Your task to perform on an android device: Open my contact list Image 0: 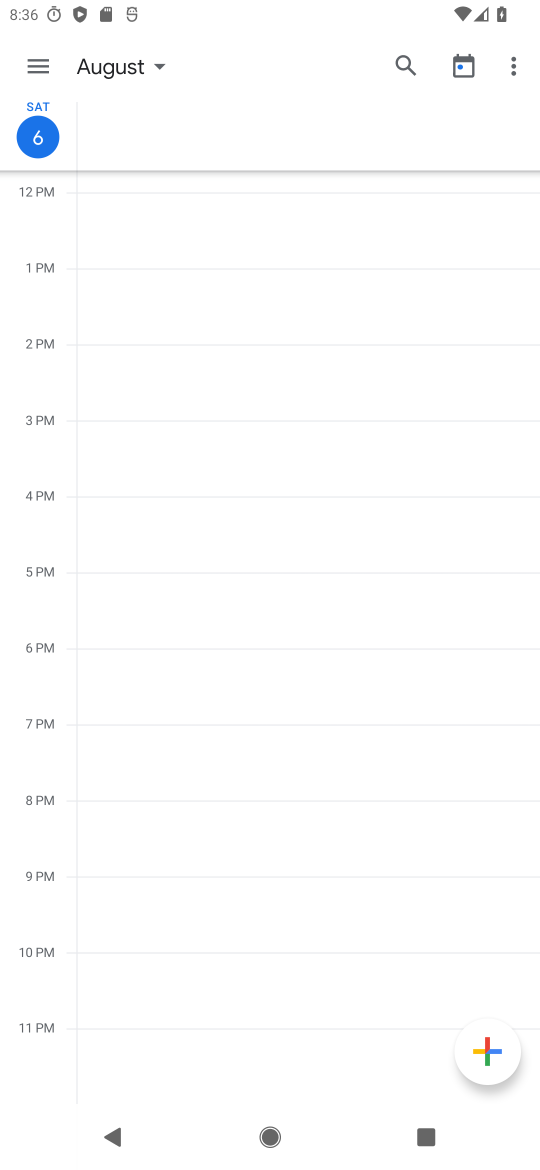
Step 0: press home button
Your task to perform on an android device: Open my contact list Image 1: 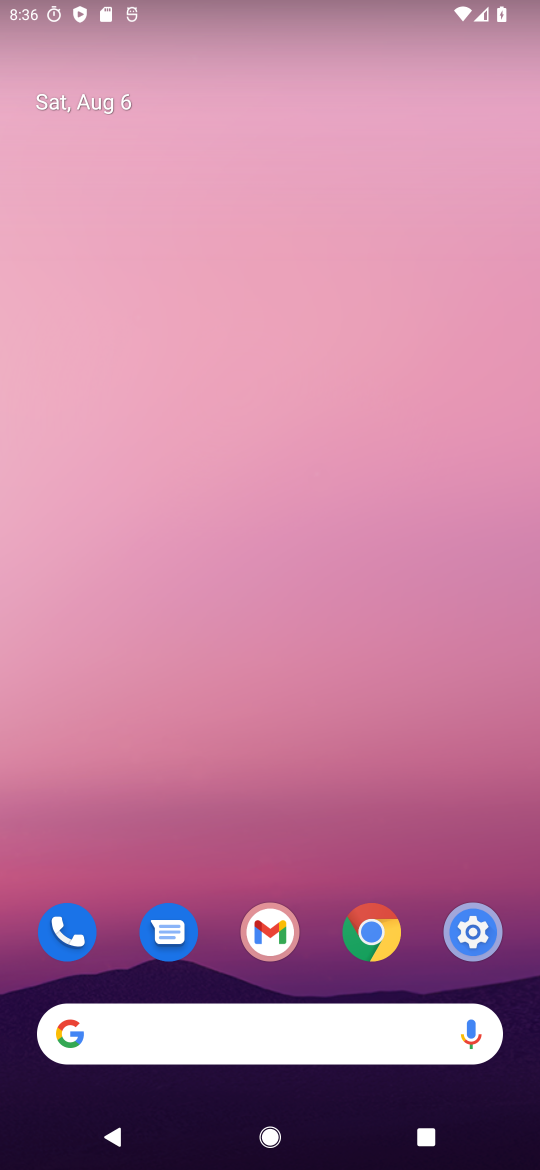
Step 1: drag from (278, 1019) to (446, 244)
Your task to perform on an android device: Open my contact list Image 2: 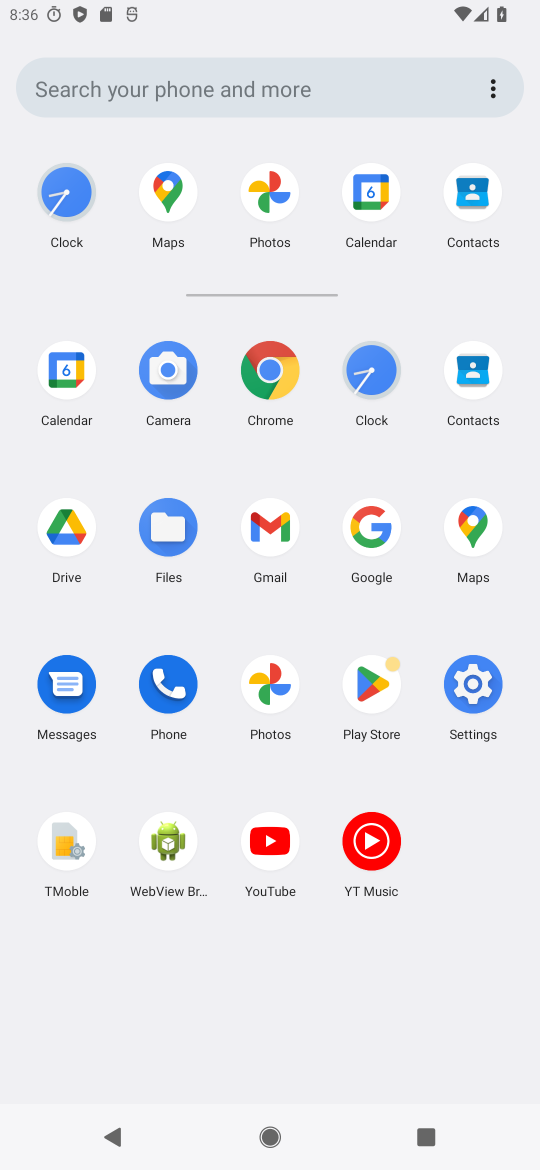
Step 2: click (476, 199)
Your task to perform on an android device: Open my contact list Image 3: 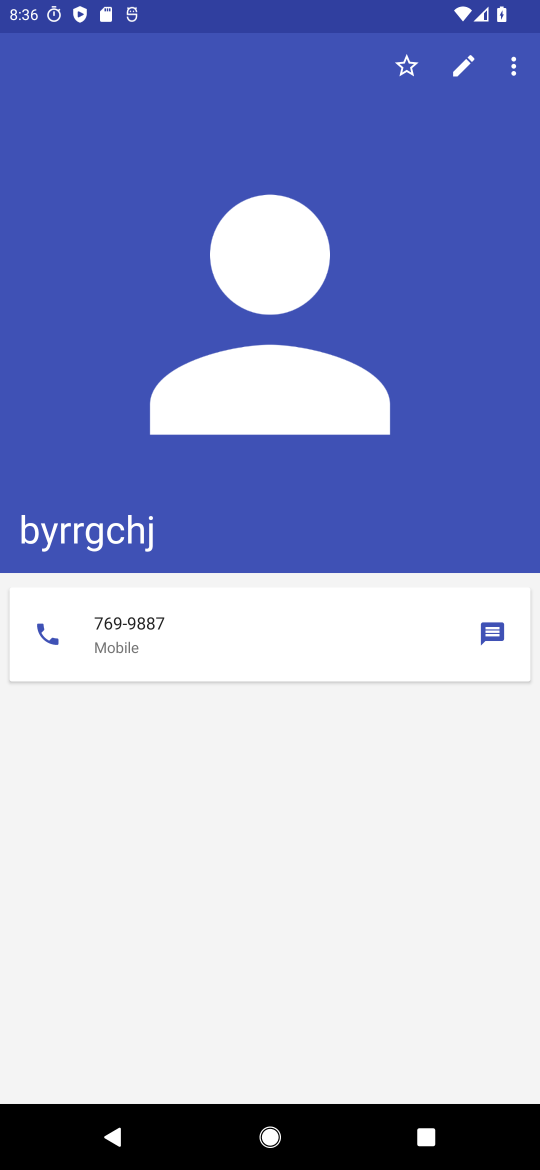
Step 3: task complete